Your task to perform on an android device: clear all cookies in the chrome app Image 0: 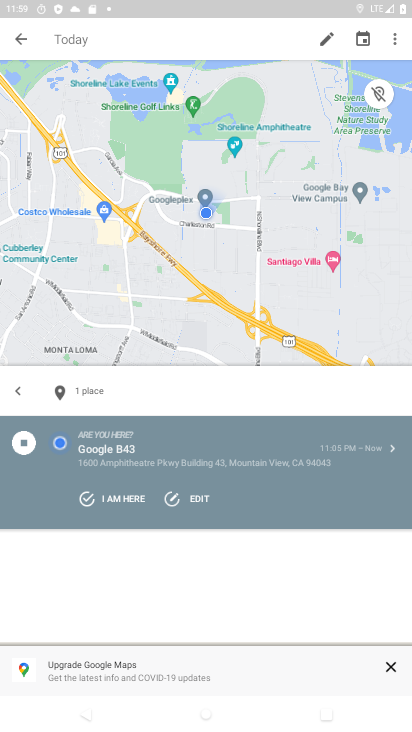
Step 0: press home button
Your task to perform on an android device: clear all cookies in the chrome app Image 1: 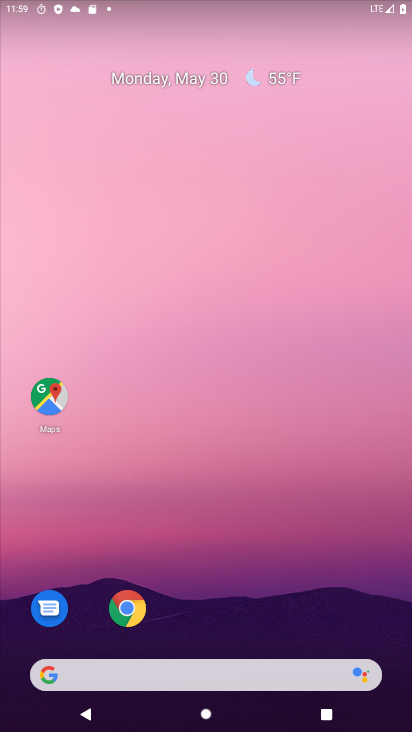
Step 1: click (131, 613)
Your task to perform on an android device: clear all cookies in the chrome app Image 2: 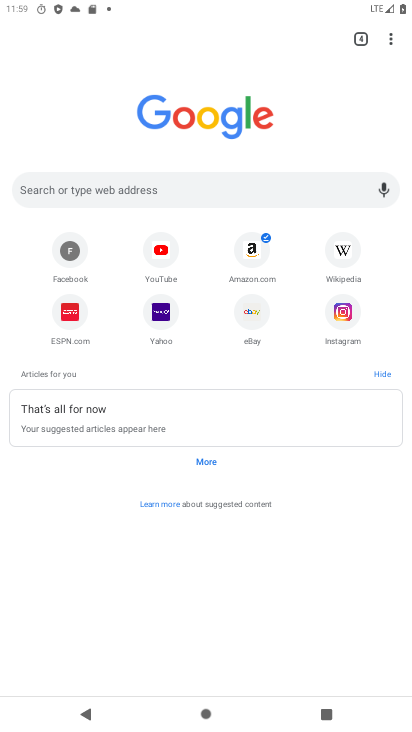
Step 2: click (392, 41)
Your task to perform on an android device: clear all cookies in the chrome app Image 3: 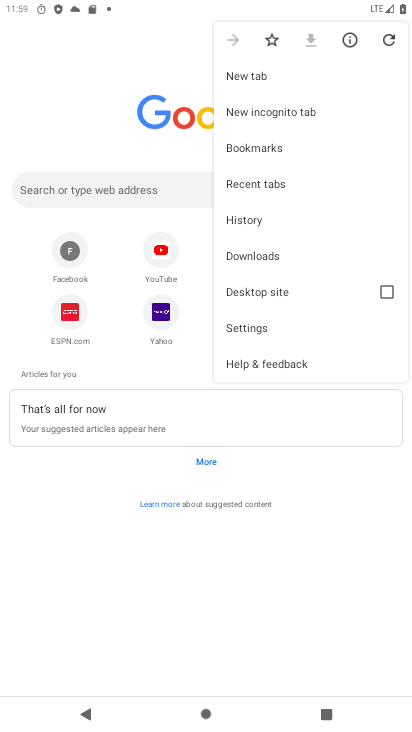
Step 3: click (248, 327)
Your task to perform on an android device: clear all cookies in the chrome app Image 4: 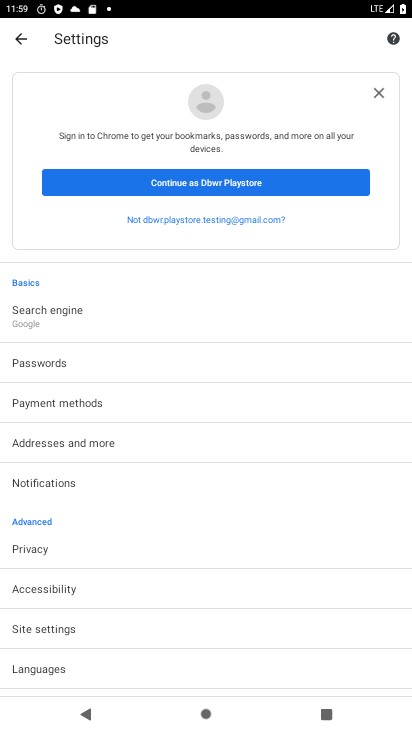
Step 4: click (39, 549)
Your task to perform on an android device: clear all cookies in the chrome app Image 5: 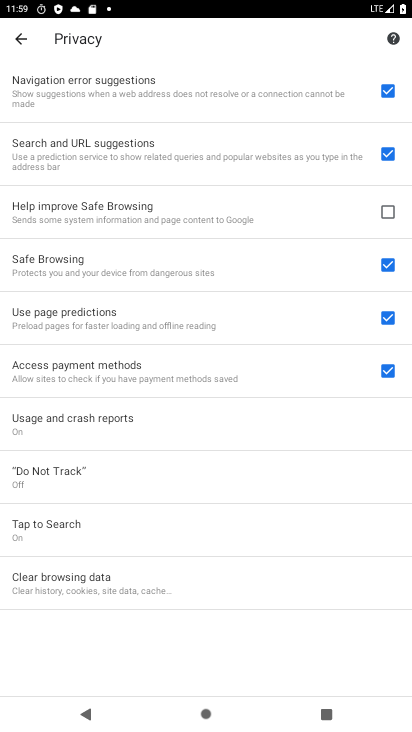
Step 5: click (54, 581)
Your task to perform on an android device: clear all cookies in the chrome app Image 6: 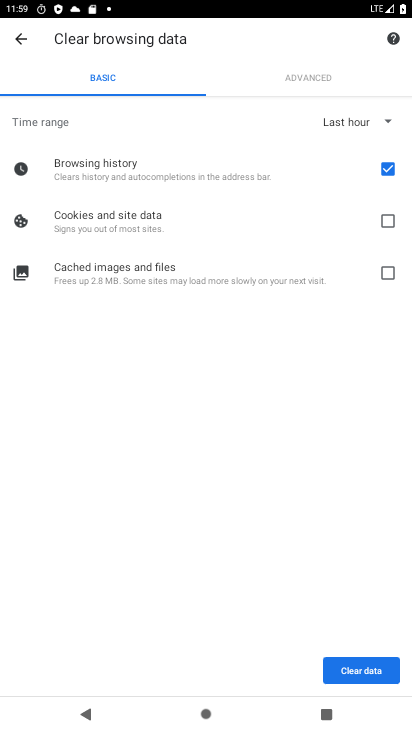
Step 6: click (390, 170)
Your task to perform on an android device: clear all cookies in the chrome app Image 7: 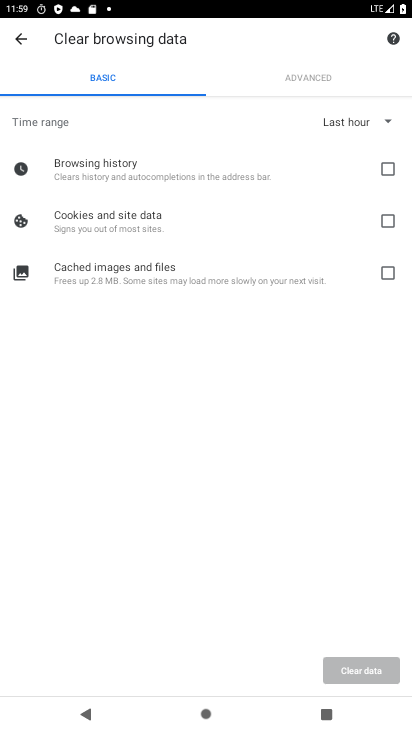
Step 7: click (389, 219)
Your task to perform on an android device: clear all cookies in the chrome app Image 8: 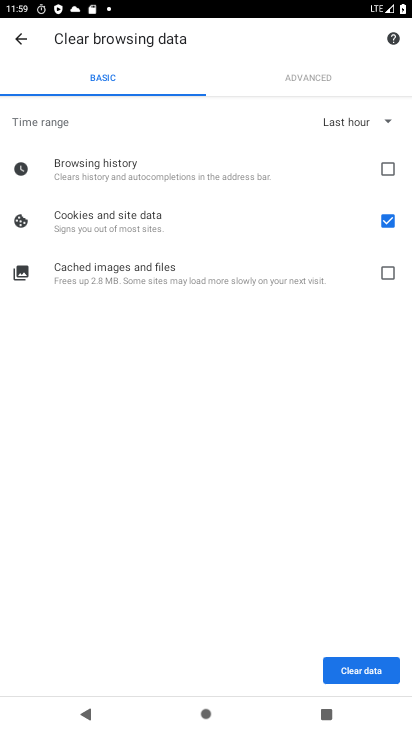
Step 8: click (356, 671)
Your task to perform on an android device: clear all cookies in the chrome app Image 9: 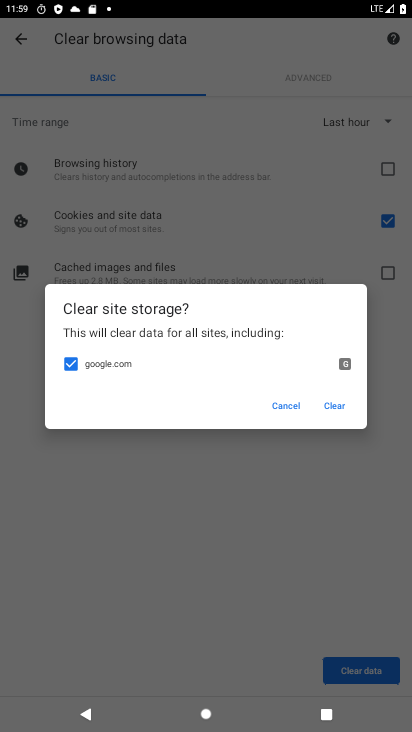
Step 9: click (340, 408)
Your task to perform on an android device: clear all cookies in the chrome app Image 10: 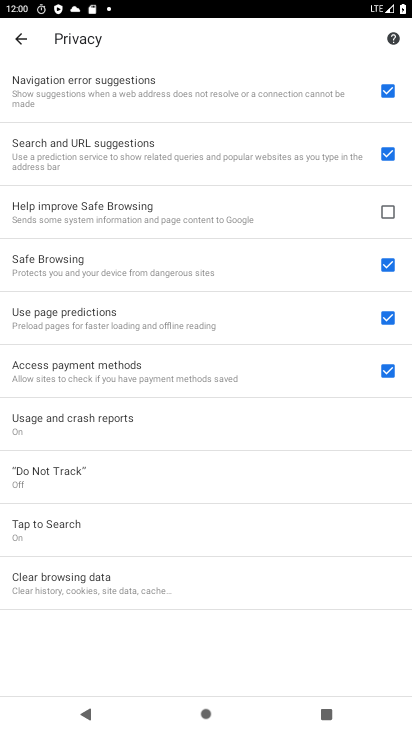
Step 10: task complete